Your task to perform on an android device: Go to battery settings Image 0: 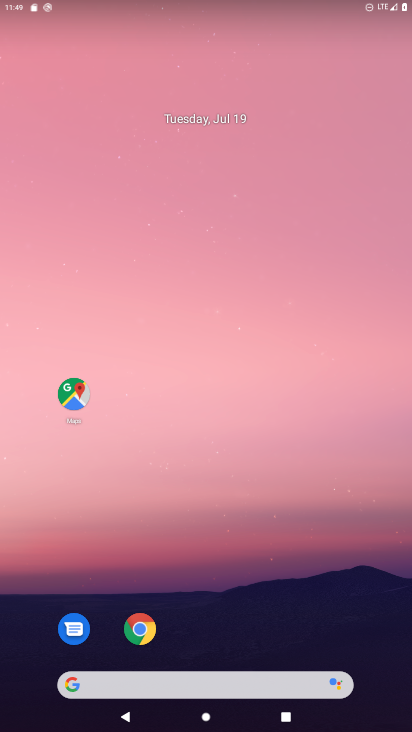
Step 0: drag from (171, 526) to (171, 250)
Your task to perform on an android device: Go to battery settings Image 1: 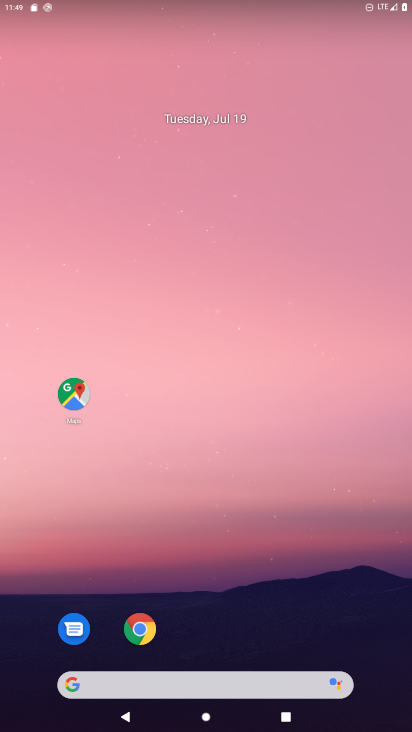
Step 1: drag from (189, 615) to (231, 90)
Your task to perform on an android device: Go to battery settings Image 2: 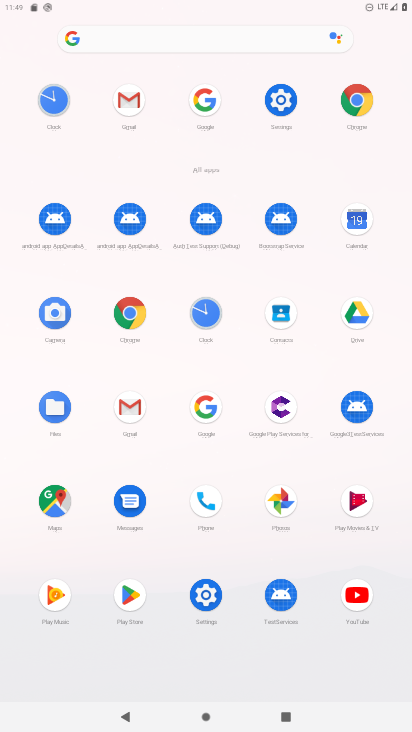
Step 2: click (281, 106)
Your task to perform on an android device: Go to battery settings Image 3: 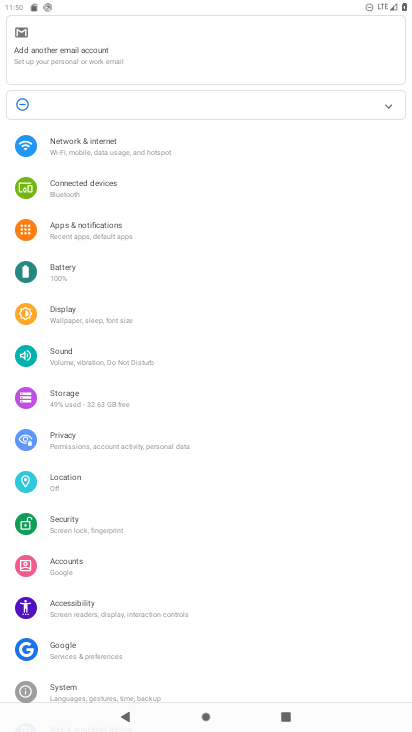
Step 3: click (87, 283)
Your task to perform on an android device: Go to battery settings Image 4: 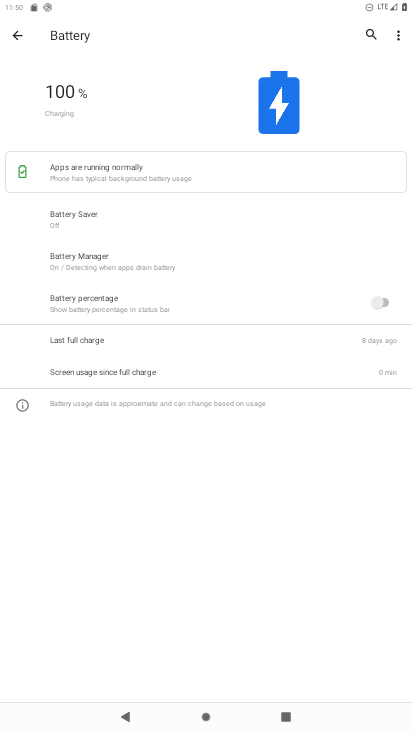
Step 4: task complete